Your task to perform on an android device: turn off location history Image 0: 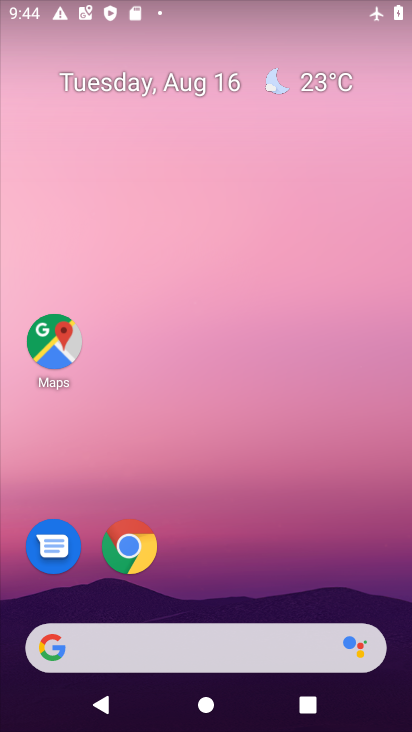
Step 0: drag from (215, 553) to (270, 0)
Your task to perform on an android device: turn off location history Image 1: 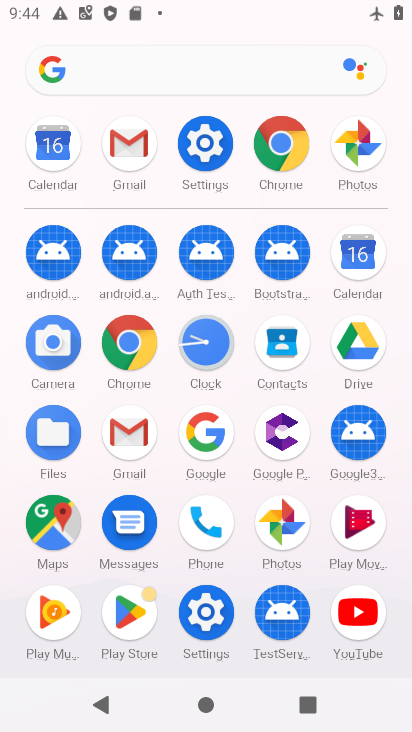
Step 1: click (206, 143)
Your task to perform on an android device: turn off location history Image 2: 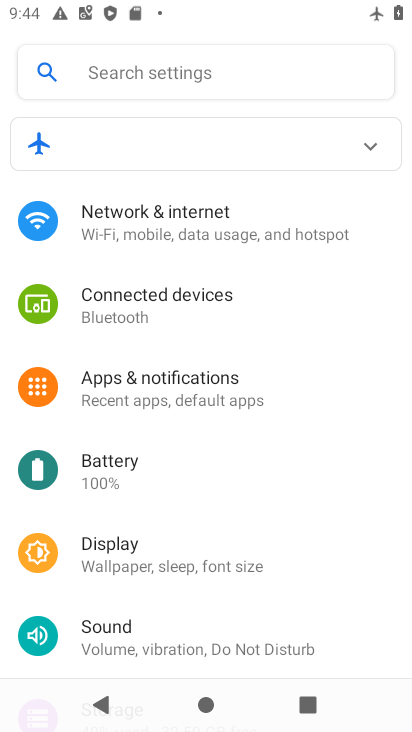
Step 2: drag from (193, 603) to (272, 10)
Your task to perform on an android device: turn off location history Image 3: 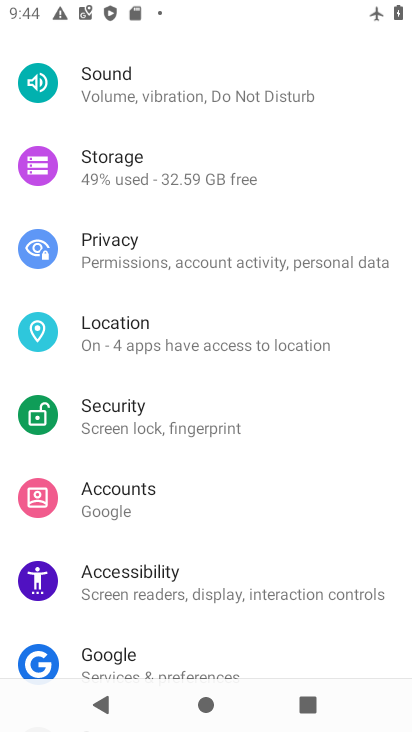
Step 3: click (191, 338)
Your task to perform on an android device: turn off location history Image 4: 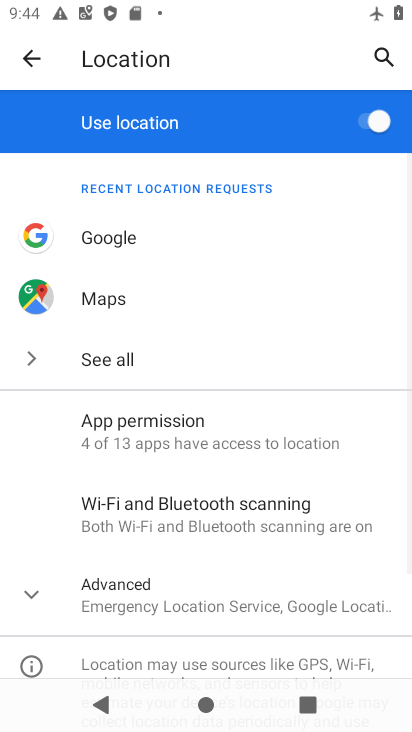
Step 4: click (34, 591)
Your task to perform on an android device: turn off location history Image 5: 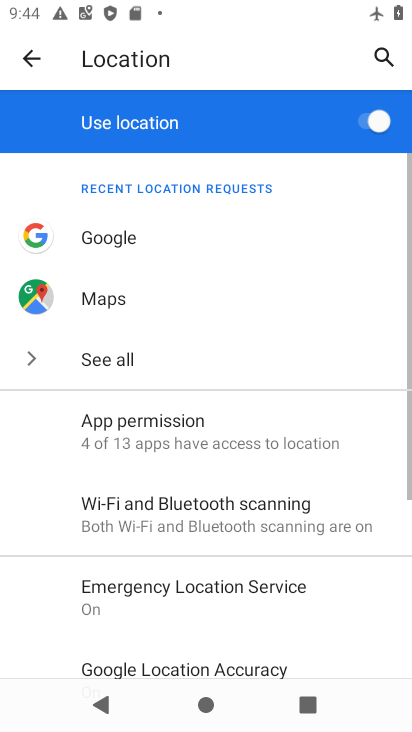
Step 5: drag from (203, 484) to (263, 87)
Your task to perform on an android device: turn off location history Image 6: 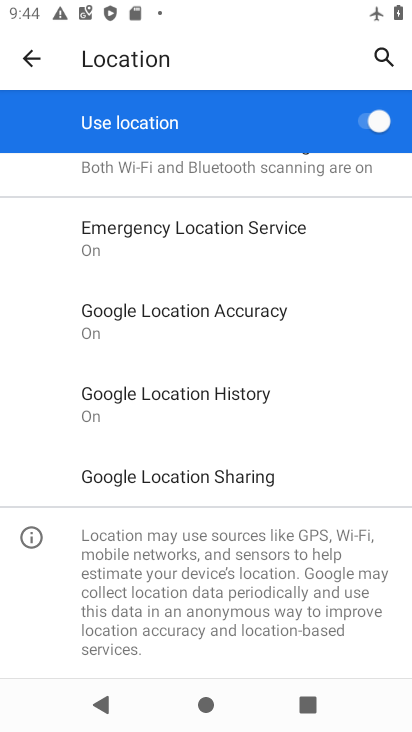
Step 6: click (210, 396)
Your task to perform on an android device: turn off location history Image 7: 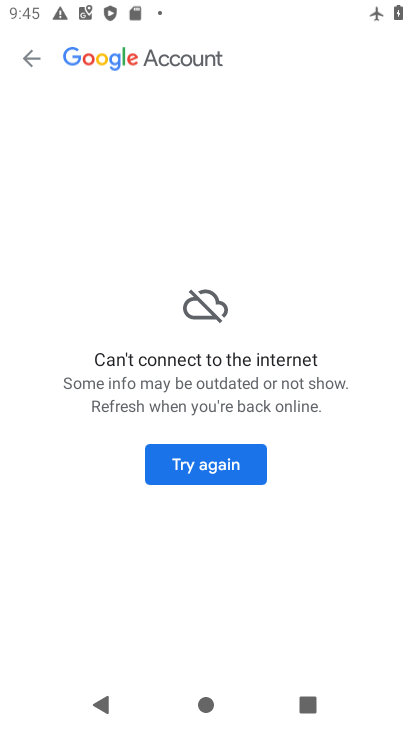
Step 7: task complete